Your task to perform on an android device: visit the assistant section in the google photos Image 0: 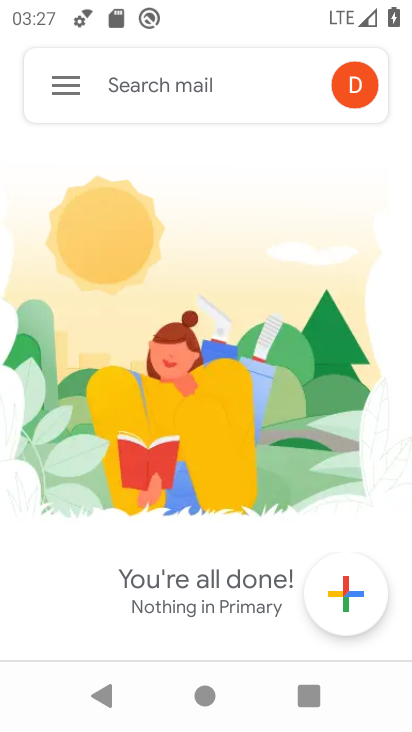
Step 0: press home button
Your task to perform on an android device: visit the assistant section in the google photos Image 1: 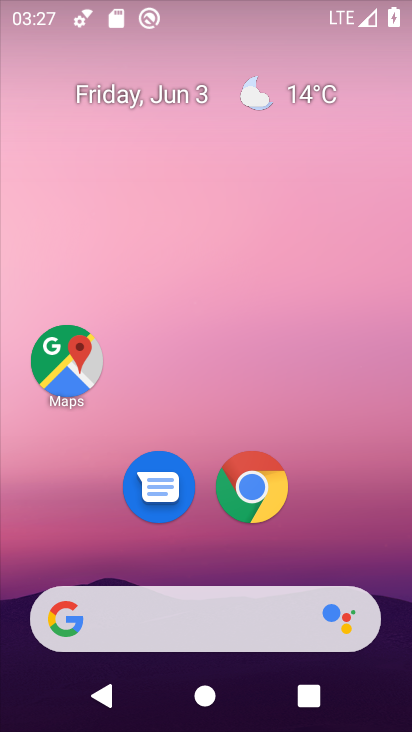
Step 1: drag from (368, 565) to (238, 11)
Your task to perform on an android device: visit the assistant section in the google photos Image 2: 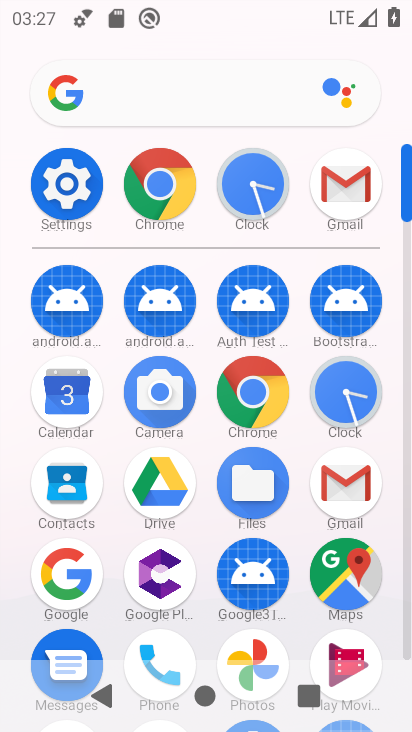
Step 2: click (261, 641)
Your task to perform on an android device: visit the assistant section in the google photos Image 3: 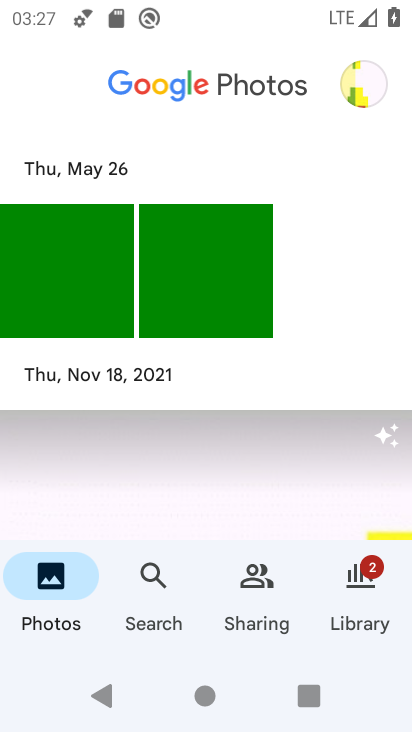
Step 3: task complete